Your task to perform on an android device: delete a single message in the gmail app Image 0: 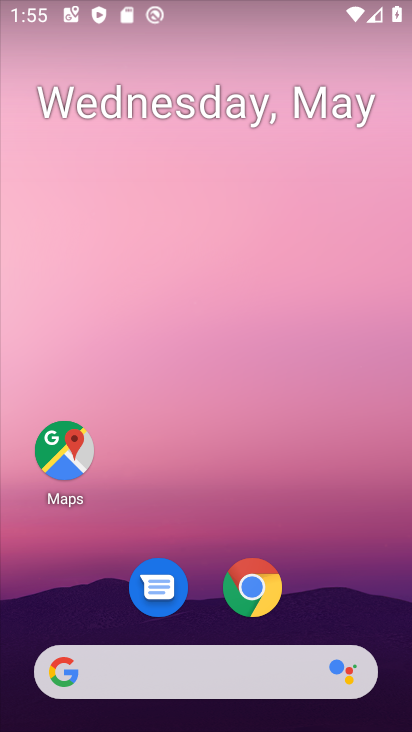
Step 0: drag from (74, 588) to (233, 184)
Your task to perform on an android device: delete a single message in the gmail app Image 1: 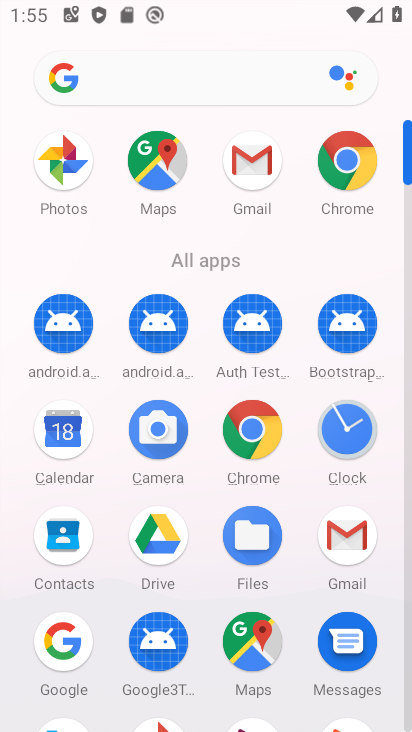
Step 1: click (351, 552)
Your task to perform on an android device: delete a single message in the gmail app Image 2: 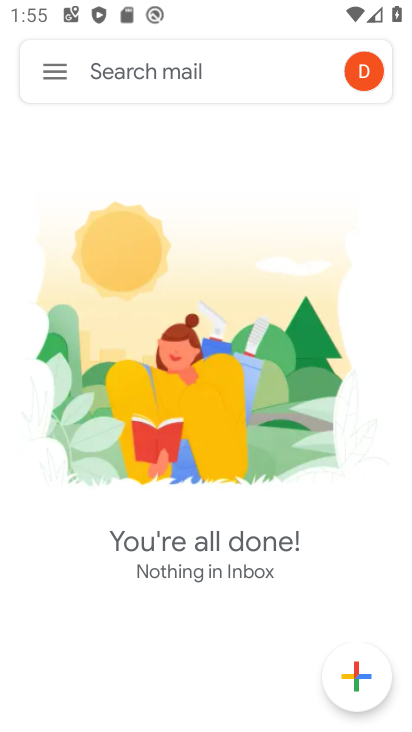
Step 2: click (69, 71)
Your task to perform on an android device: delete a single message in the gmail app Image 3: 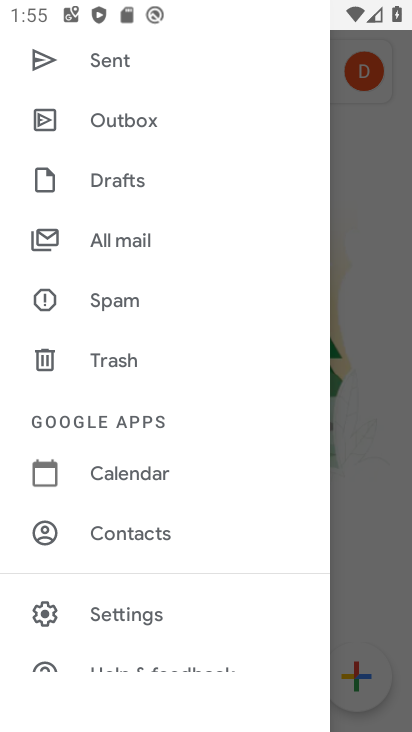
Step 3: drag from (210, 255) to (209, 517)
Your task to perform on an android device: delete a single message in the gmail app Image 4: 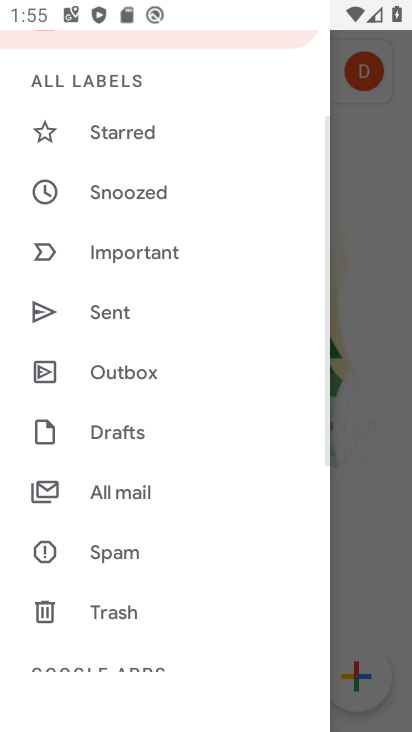
Step 4: click (160, 502)
Your task to perform on an android device: delete a single message in the gmail app Image 5: 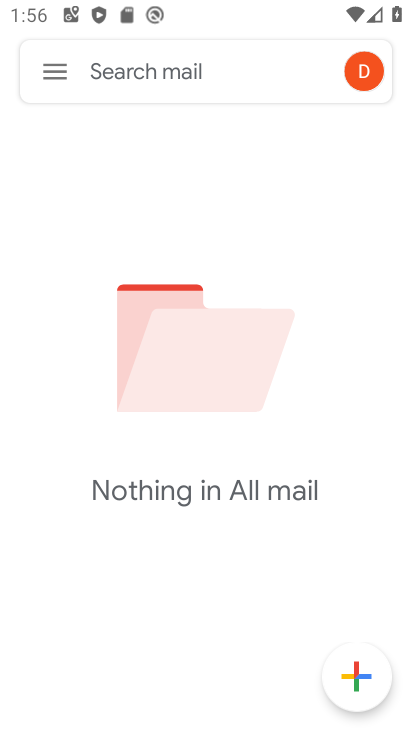
Step 5: task complete